Your task to perform on an android device: turn off improve location accuracy Image 0: 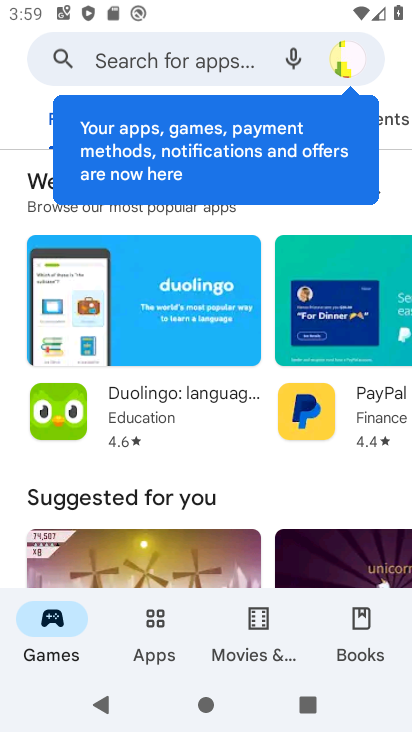
Step 0: press home button
Your task to perform on an android device: turn off improve location accuracy Image 1: 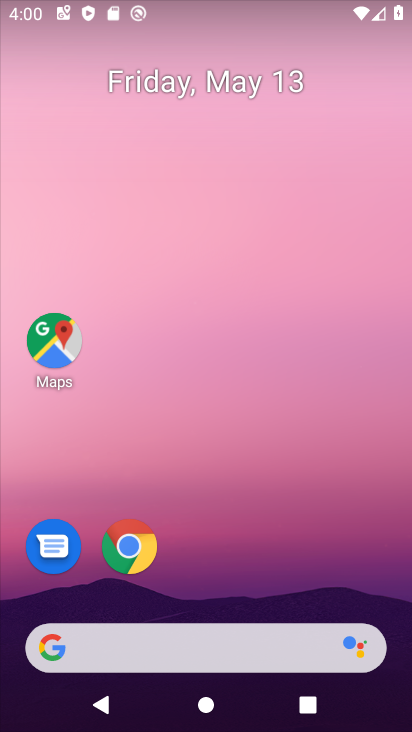
Step 1: drag from (207, 562) to (334, 2)
Your task to perform on an android device: turn off improve location accuracy Image 2: 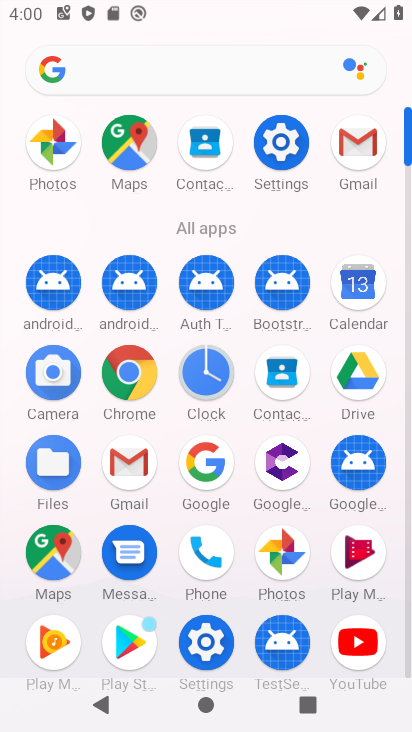
Step 2: click (215, 643)
Your task to perform on an android device: turn off improve location accuracy Image 3: 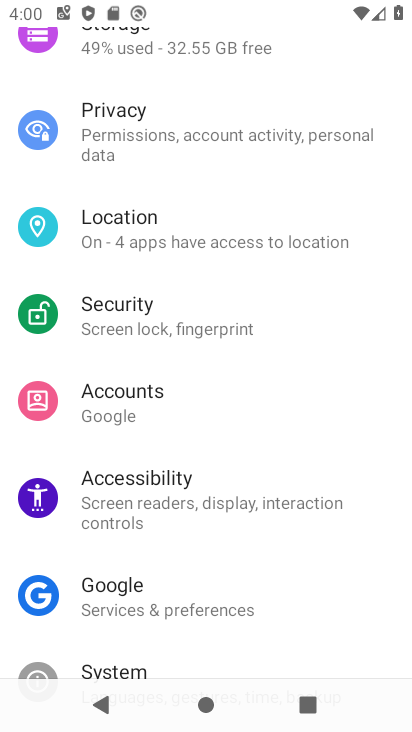
Step 3: drag from (182, 529) to (244, 250)
Your task to perform on an android device: turn off improve location accuracy Image 4: 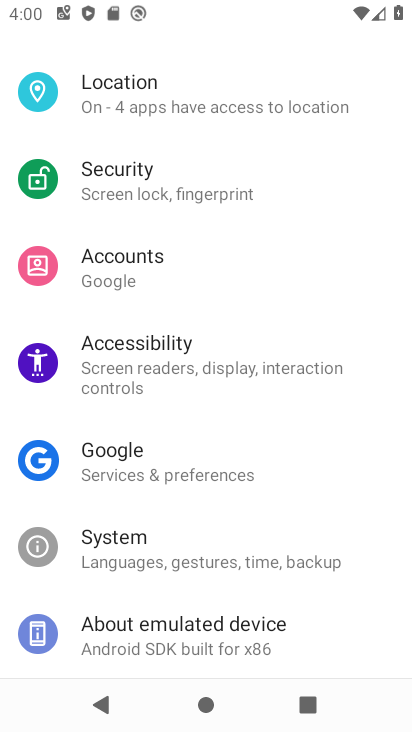
Step 4: click (153, 99)
Your task to perform on an android device: turn off improve location accuracy Image 5: 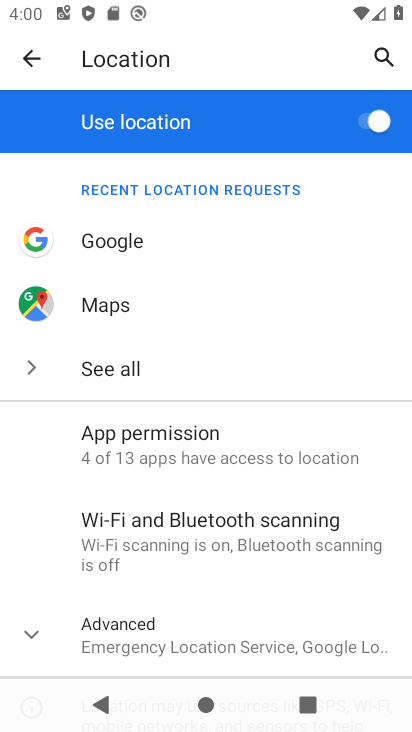
Step 5: click (121, 628)
Your task to perform on an android device: turn off improve location accuracy Image 6: 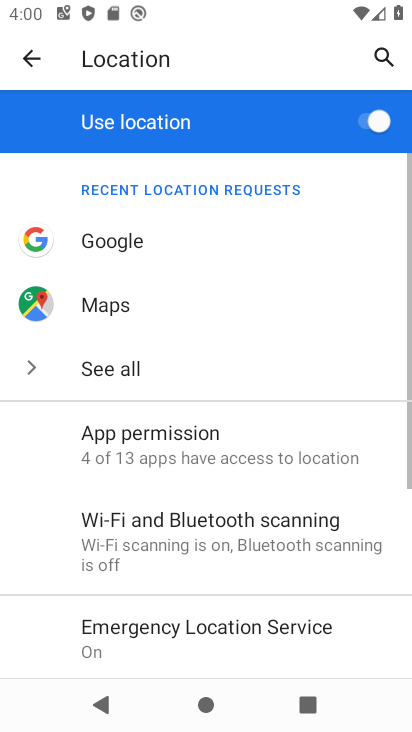
Step 6: drag from (206, 606) to (268, 161)
Your task to perform on an android device: turn off improve location accuracy Image 7: 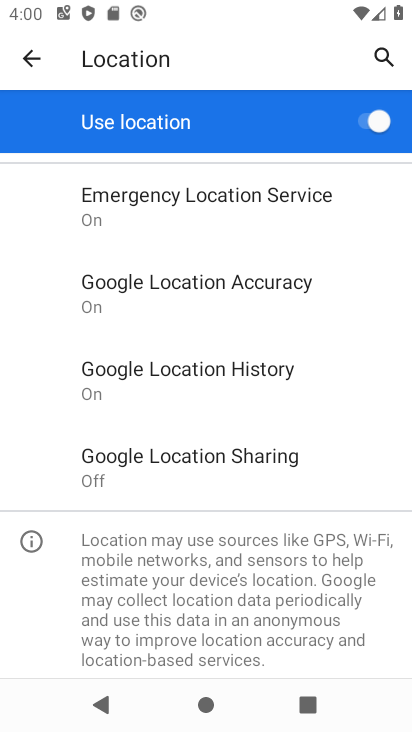
Step 7: click (183, 311)
Your task to perform on an android device: turn off improve location accuracy Image 8: 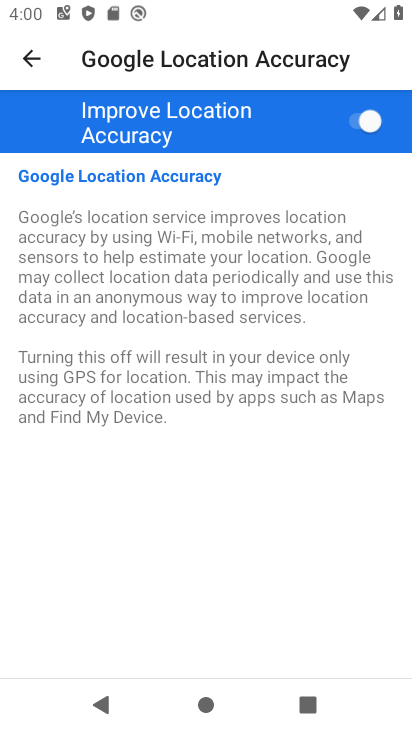
Step 8: click (313, 116)
Your task to perform on an android device: turn off improve location accuracy Image 9: 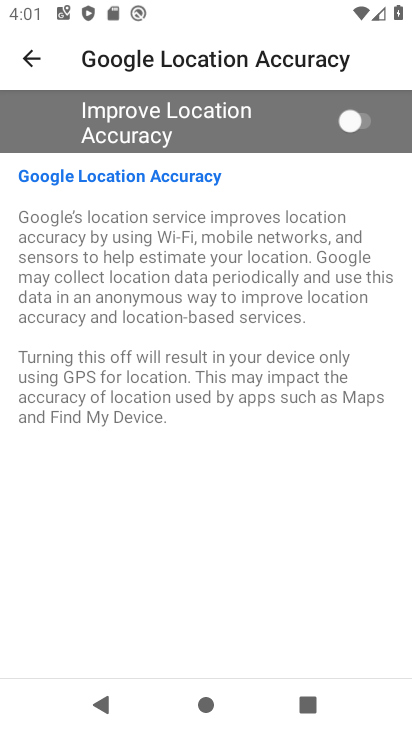
Step 9: task complete